Your task to perform on an android device: turn on bluetooth scan Image 0: 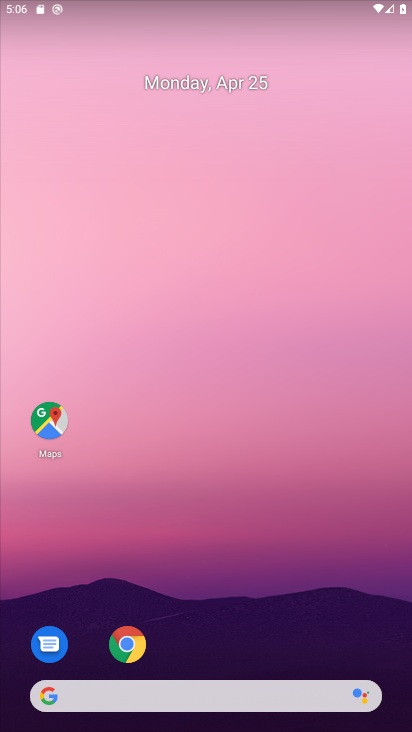
Step 0: drag from (240, 612) to (213, 75)
Your task to perform on an android device: turn on bluetooth scan Image 1: 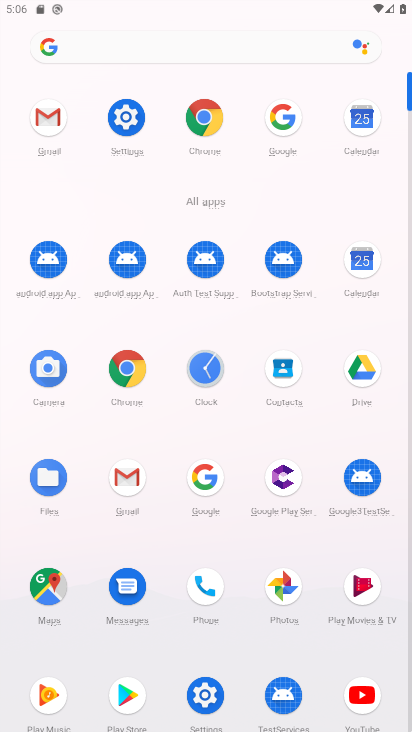
Step 1: click (126, 123)
Your task to perform on an android device: turn on bluetooth scan Image 2: 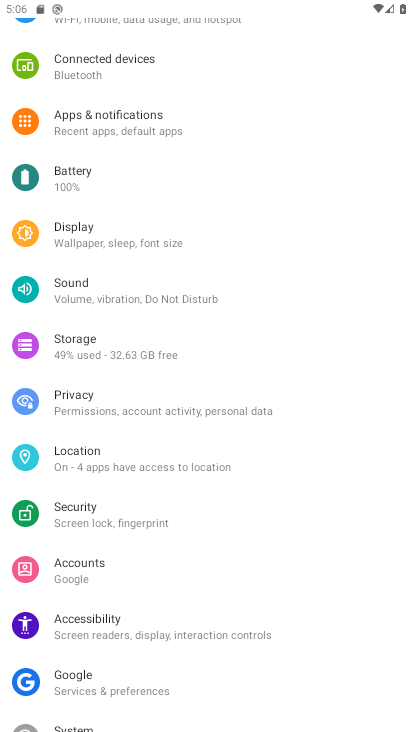
Step 2: click (115, 449)
Your task to perform on an android device: turn on bluetooth scan Image 3: 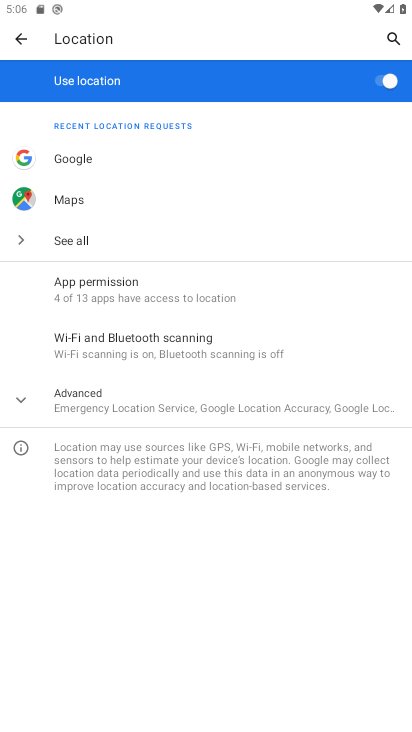
Step 3: click (156, 361)
Your task to perform on an android device: turn on bluetooth scan Image 4: 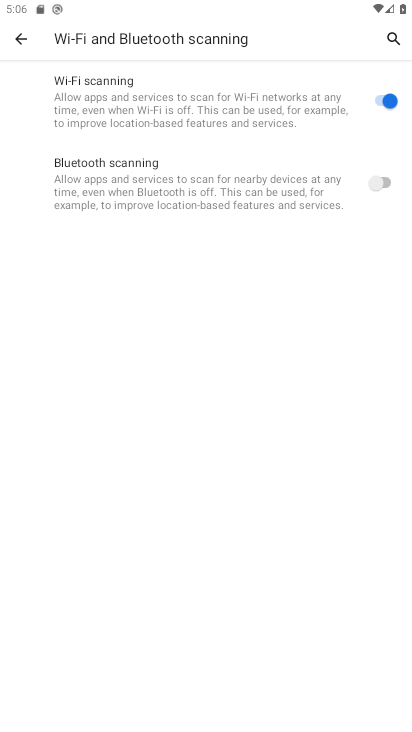
Step 4: click (374, 185)
Your task to perform on an android device: turn on bluetooth scan Image 5: 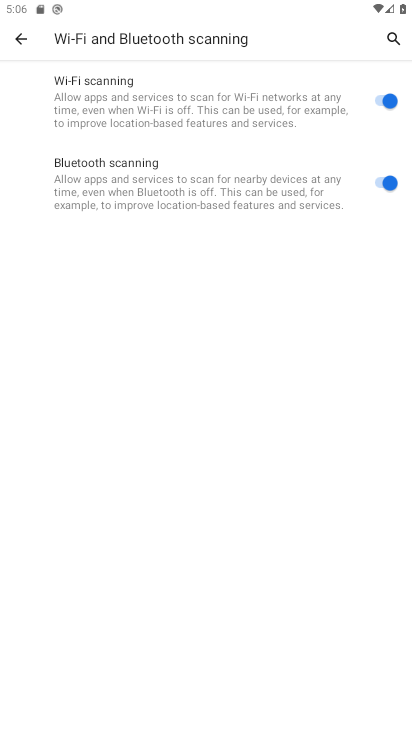
Step 5: task complete